Your task to perform on an android device: turn pop-ups off in chrome Image 0: 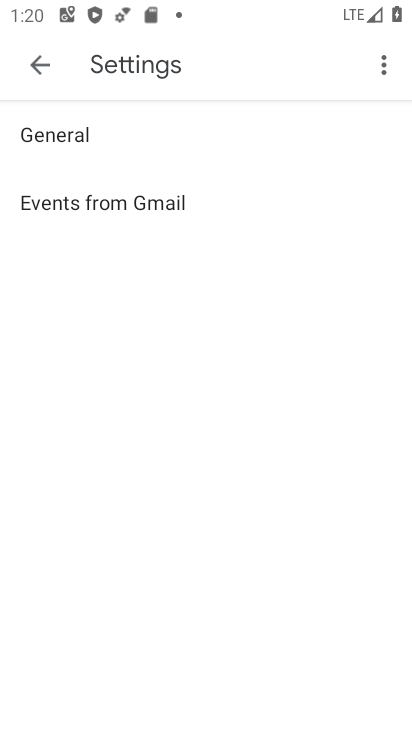
Step 0: press home button
Your task to perform on an android device: turn pop-ups off in chrome Image 1: 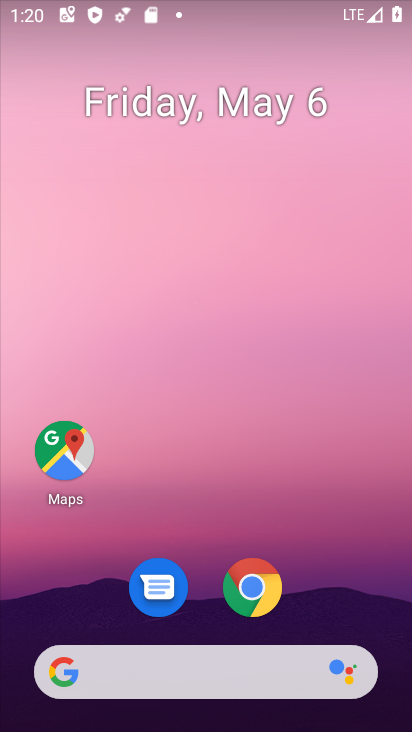
Step 1: click (246, 597)
Your task to perform on an android device: turn pop-ups off in chrome Image 2: 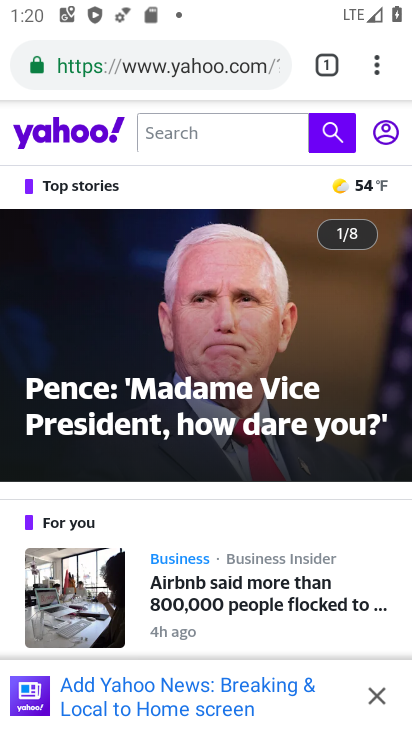
Step 2: click (237, 68)
Your task to perform on an android device: turn pop-ups off in chrome Image 3: 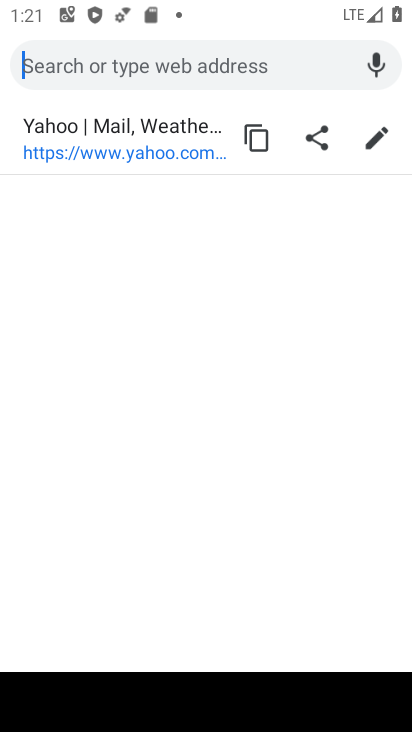
Step 3: press back button
Your task to perform on an android device: turn pop-ups off in chrome Image 4: 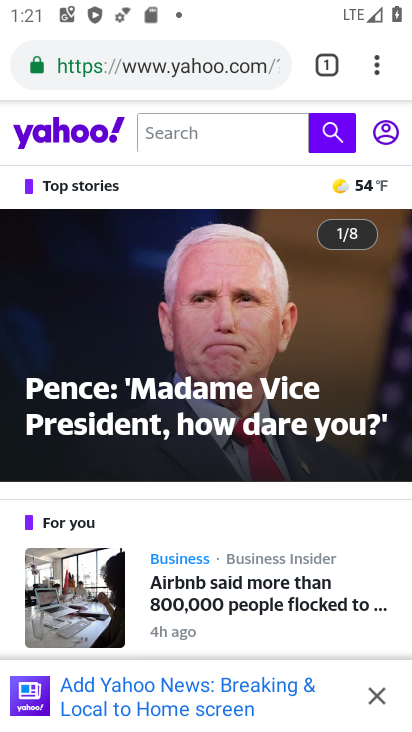
Step 4: drag from (372, 58) to (185, 649)
Your task to perform on an android device: turn pop-ups off in chrome Image 5: 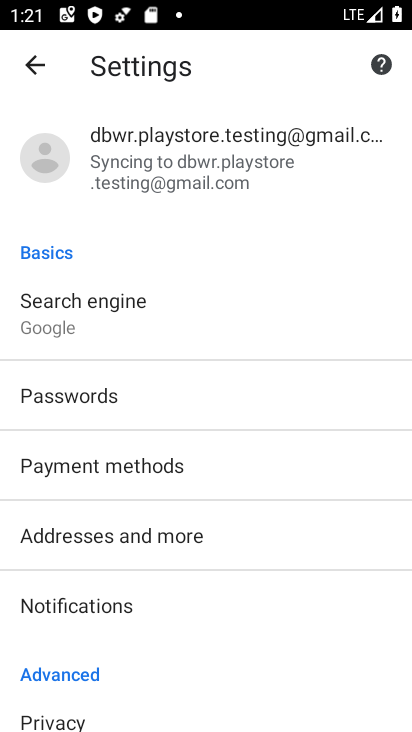
Step 5: drag from (136, 687) to (144, 417)
Your task to perform on an android device: turn pop-ups off in chrome Image 6: 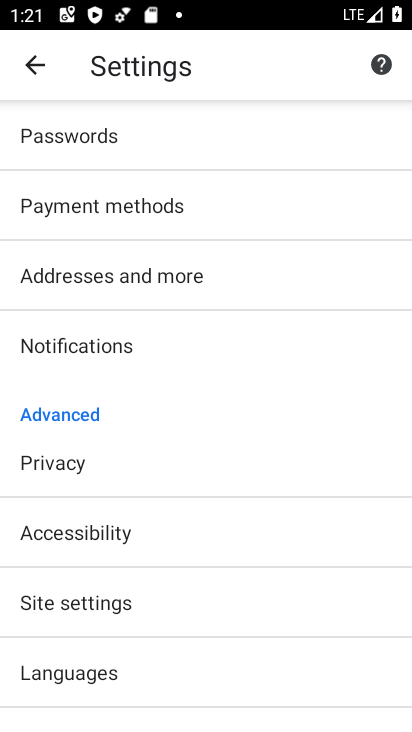
Step 6: click (104, 599)
Your task to perform on an android device: turn pop-ups off in chrome Image 7: 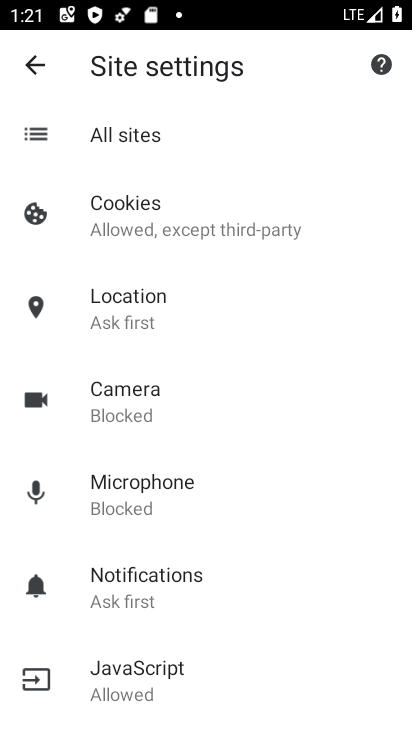
Step 7: drag from (181, 688) to (214, 381)
Your task to perform on an android device: turn pop-ups off in chrome Image 8: 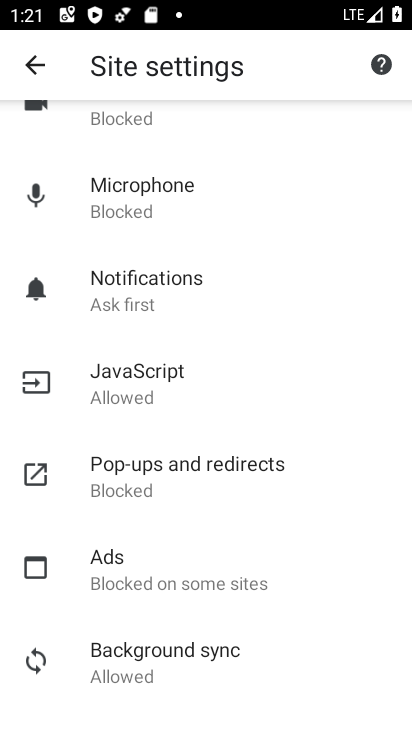
Step 8: click (207, 485)
Your task to perform on an android device: turn pop-ups off in chrome Image 9: 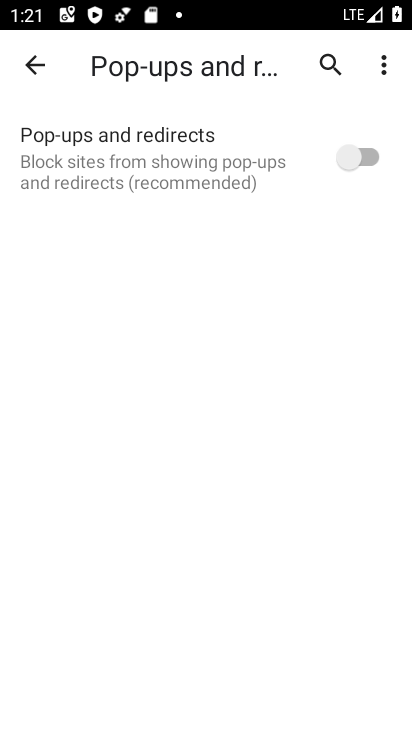
Step 9: task complete